Your task to perform on an android device: toggle javascript in the chrome app Image 0: 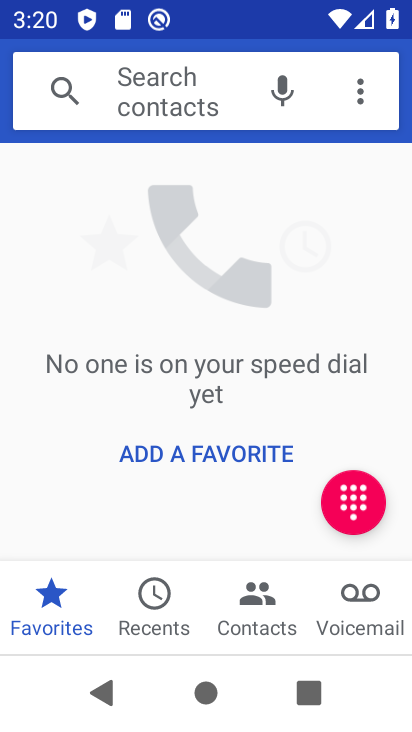
Step 0: press home button
Your task to perform on an android device: toggle javascript in the chrome app Image 1: 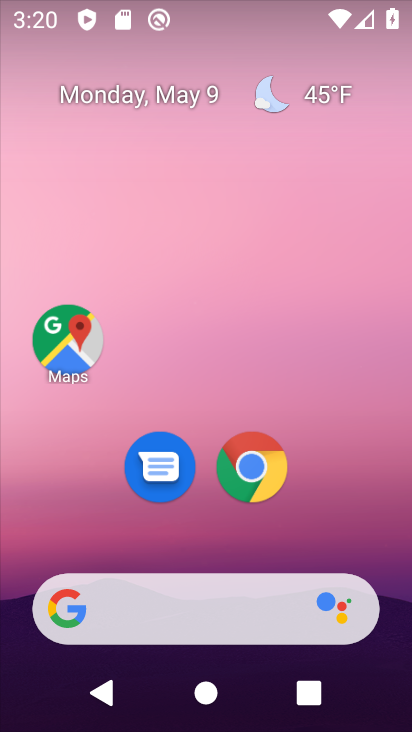
Step 1: click (259, 498)
Your task to perform on an android device: toggle javascript in the chrome app Image 2: 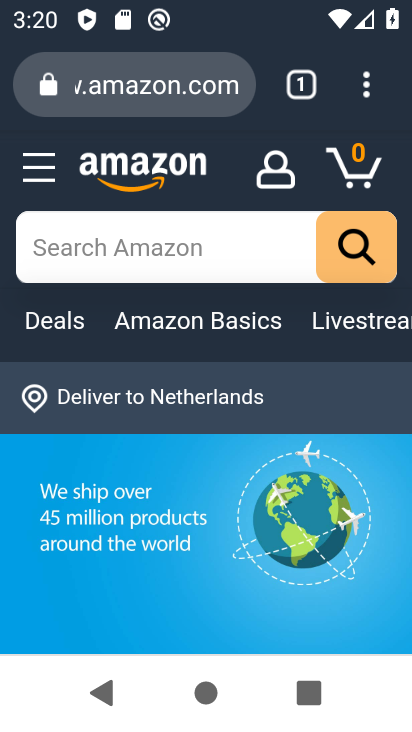
Step 2: drag from (361, 87) to (123, 525)
Your task to perform on an android device: toggle javascript in the chrome app Image 3: 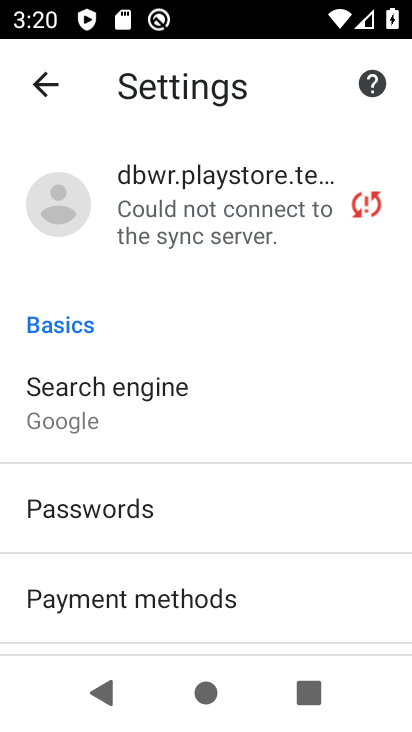
Step 3: drag from (149, 567) to (162, 284)
Your task to perform on an android device: toggle javascript in the chrome app Image 4: 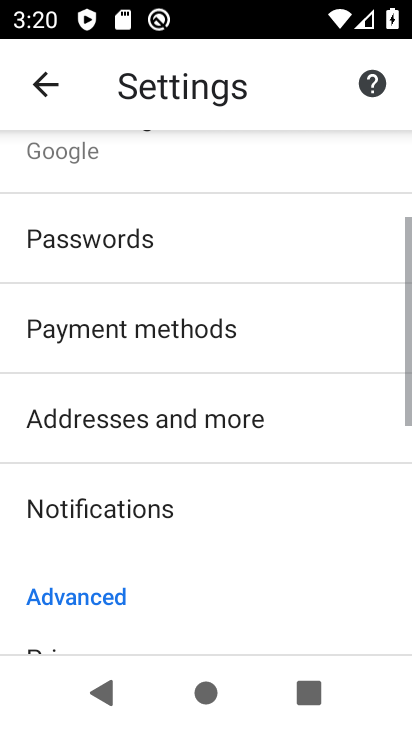
Step 4: drag from (180, 628) to (168, 243)
Your task to perform on an android device: toggle javascript in the chrome app Image 5: 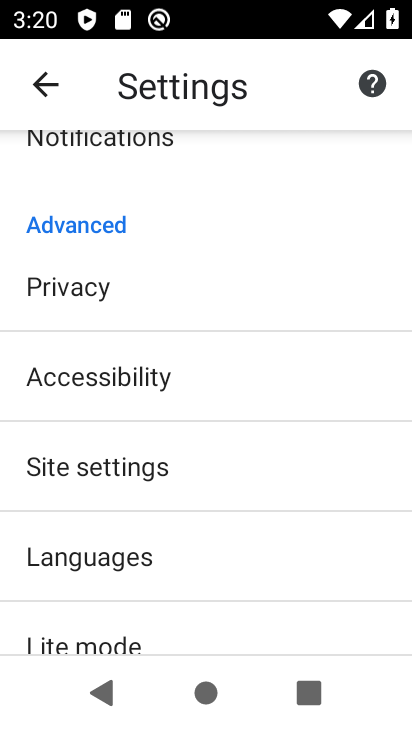
Step 5: click (132, 458)
Your task to perform on an android device: toggle javascript in the chrome app Image 6: 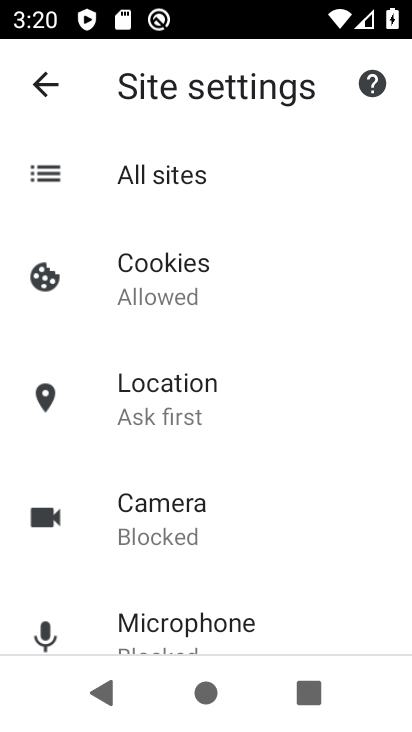
Step 6: drag from (193, 578) to (213, 280)
Your task to perform on an android device: toggle javascript in the chrome app Image 7: 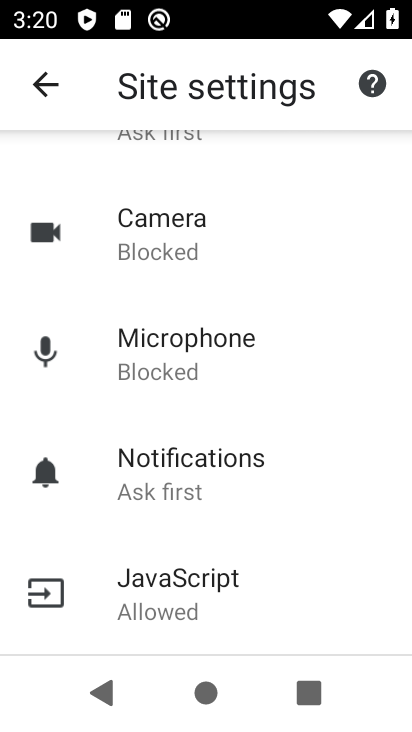
Step 7: click (202, 602)
Your task to perform on an android device: toggle javascript in the chrome app Image 8: 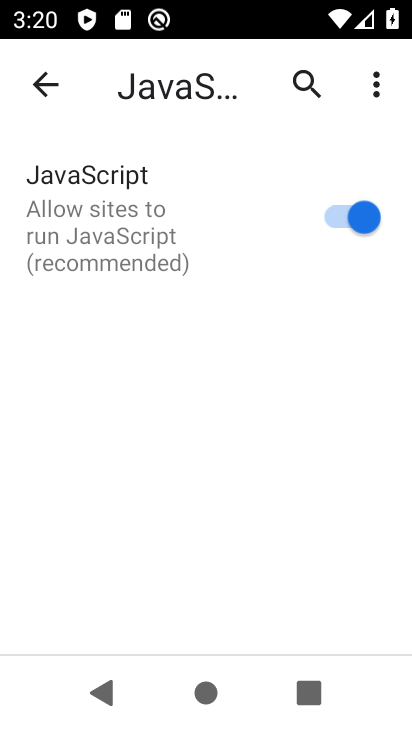
Step 8: click (362, 219)
Your task to perform on an android device: toggle javascript in the chrome app Image 9: 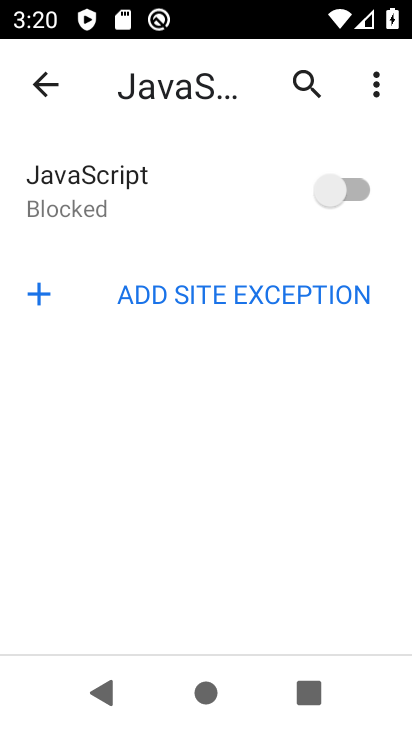
Step 9: task complete